Your task to perform on an android device: find which apps use the phone's location Image 0: 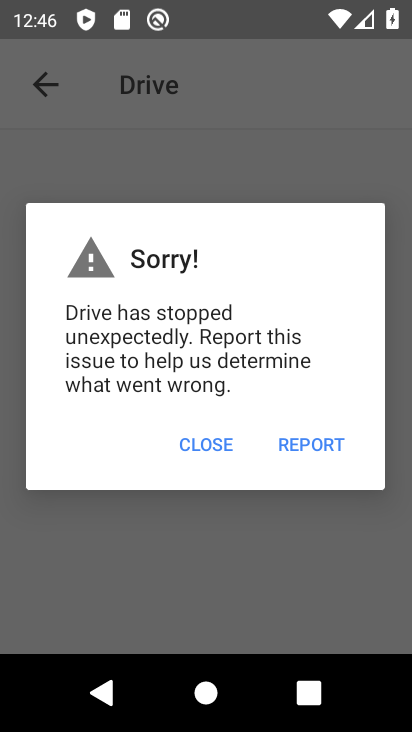
Step 0: press home button
Your task to perform on an android device: find which apps use the phone's location Image 1: 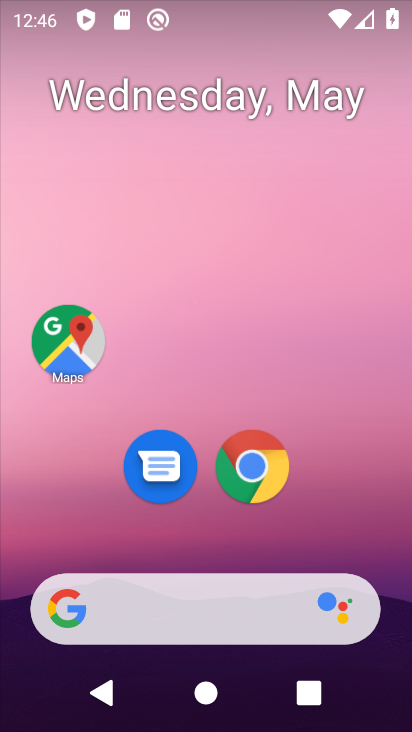
Step 1: drag from (221, 536) to (253, 68)
Your task to perform on an android device: find which apps use the phone's location Image 2: 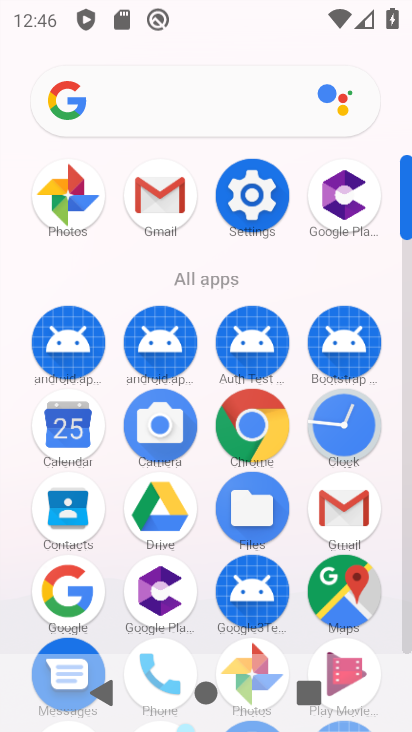
Step 2: click (257, 197)
Your task to perform on an android device: find which apps use the phone's location Image 3: 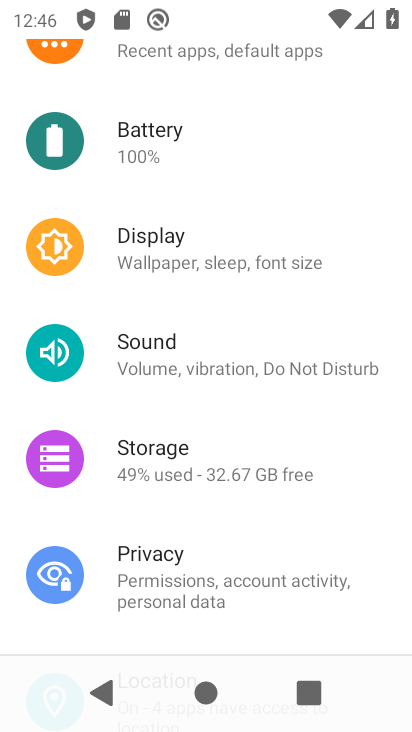
Step 3: drag from (222, 184) to (296, 650)
Your task to perform on an android device: find which apps use the phone's location Image 4: 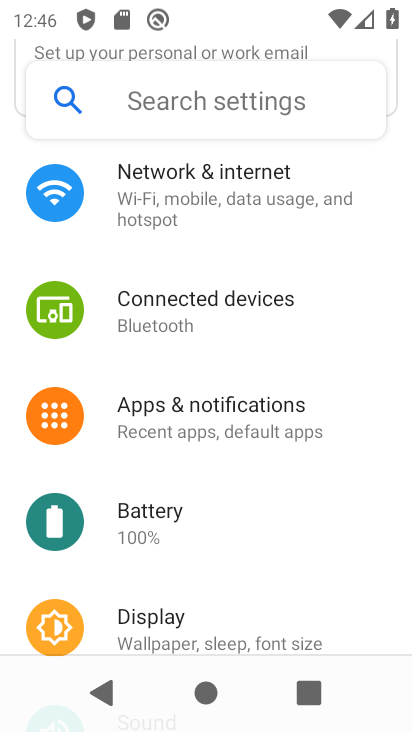
Step 4: drag from (228, 511) to (262, 94)
Your task to perform on an android device: find which apps use the phone's location Image 5: 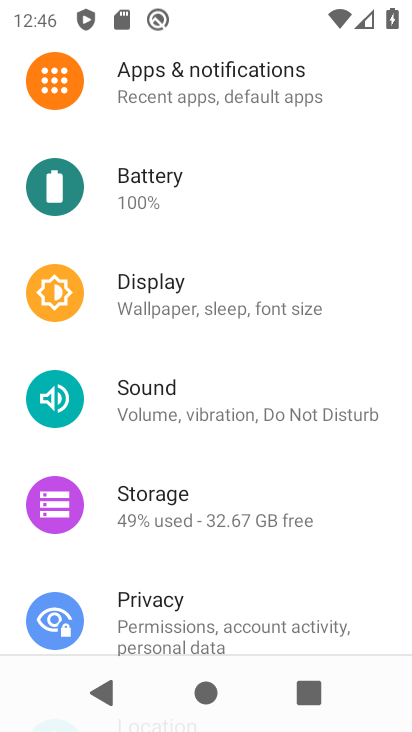
Step 5: drag from (179, 578) to (247, 228)
Your task to perform on an android device: find which apps use the phone's location Image 6: 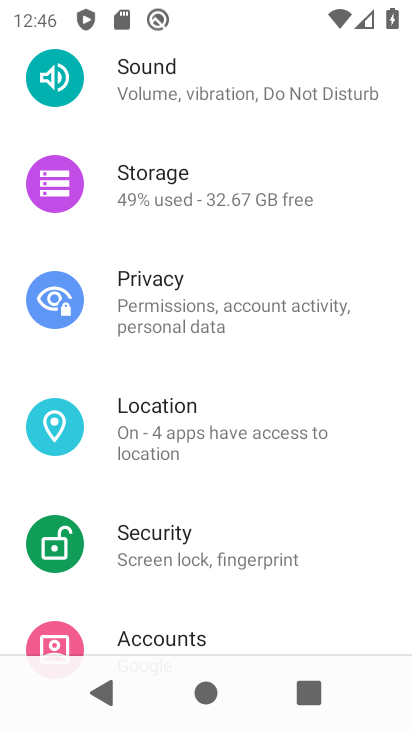
Step 6: click (149, 430)
Your task to perform on an android device: find which apps use the phone's location Image 7: 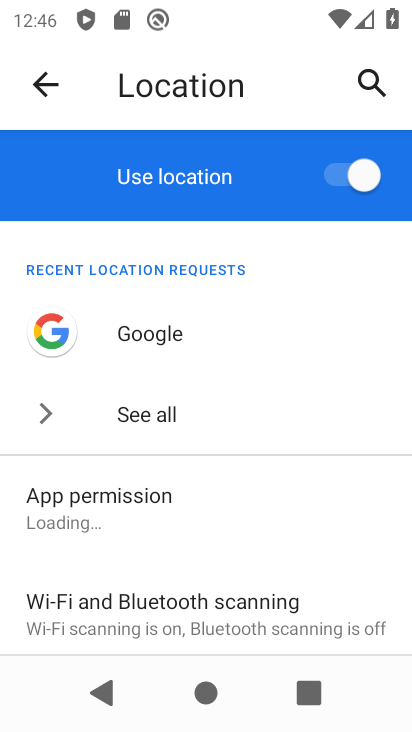
Step 7: click (147, 503)
Your task to perform on an android device: find which apps use the phone's location Image 8: 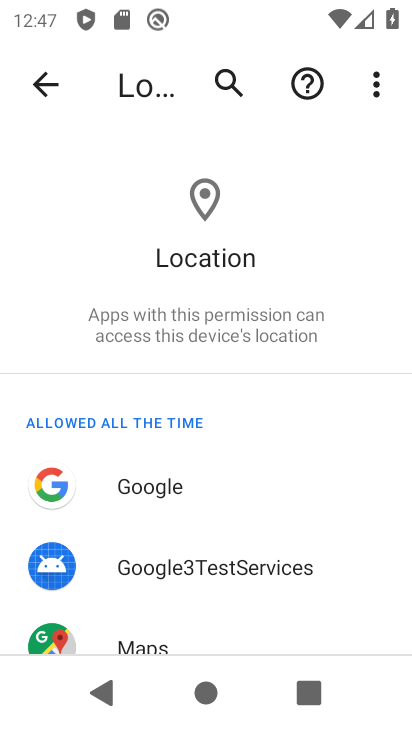
Step 8: task complete